Your task to perform on an android device: What's the top post on reddit? Image 0: 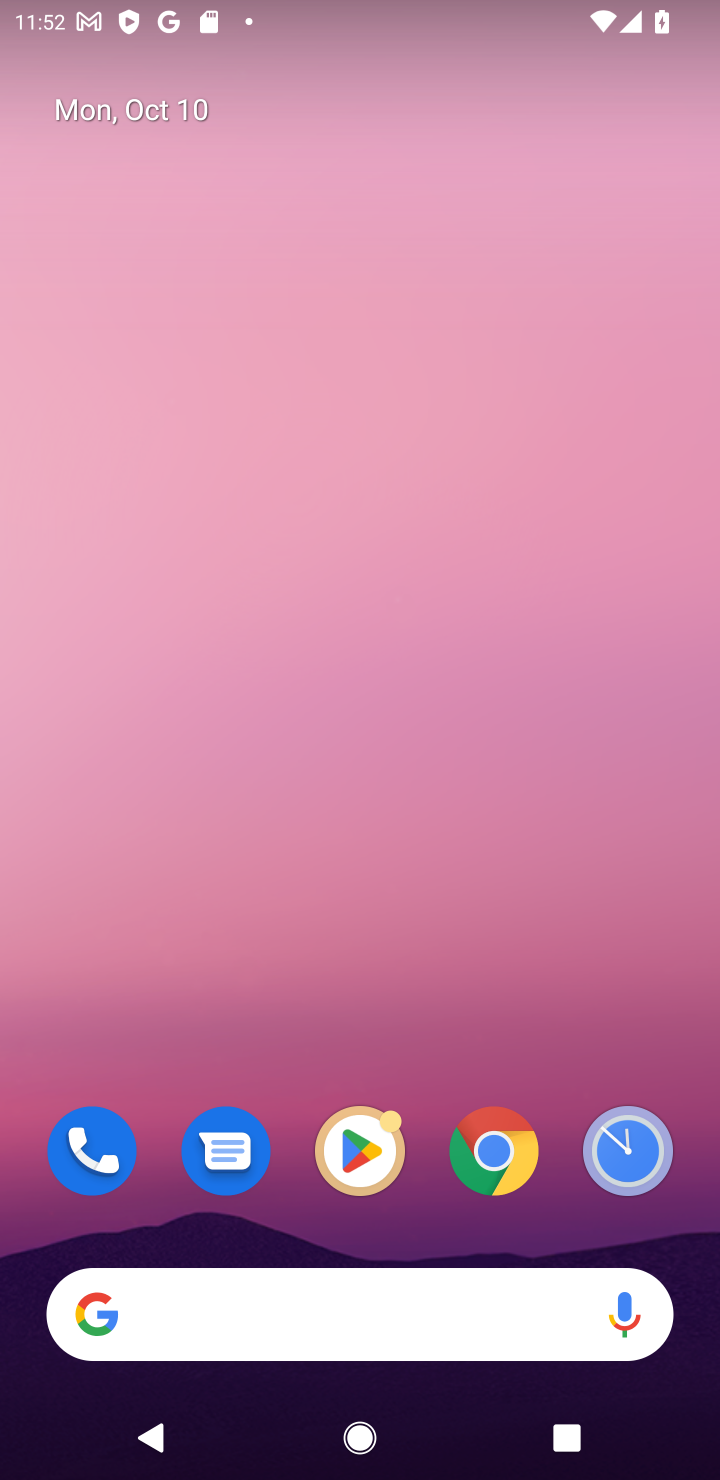
Step 0: click (290, 1299)
Your task to perform on an android device: What's the top post on reddit? Image 1: 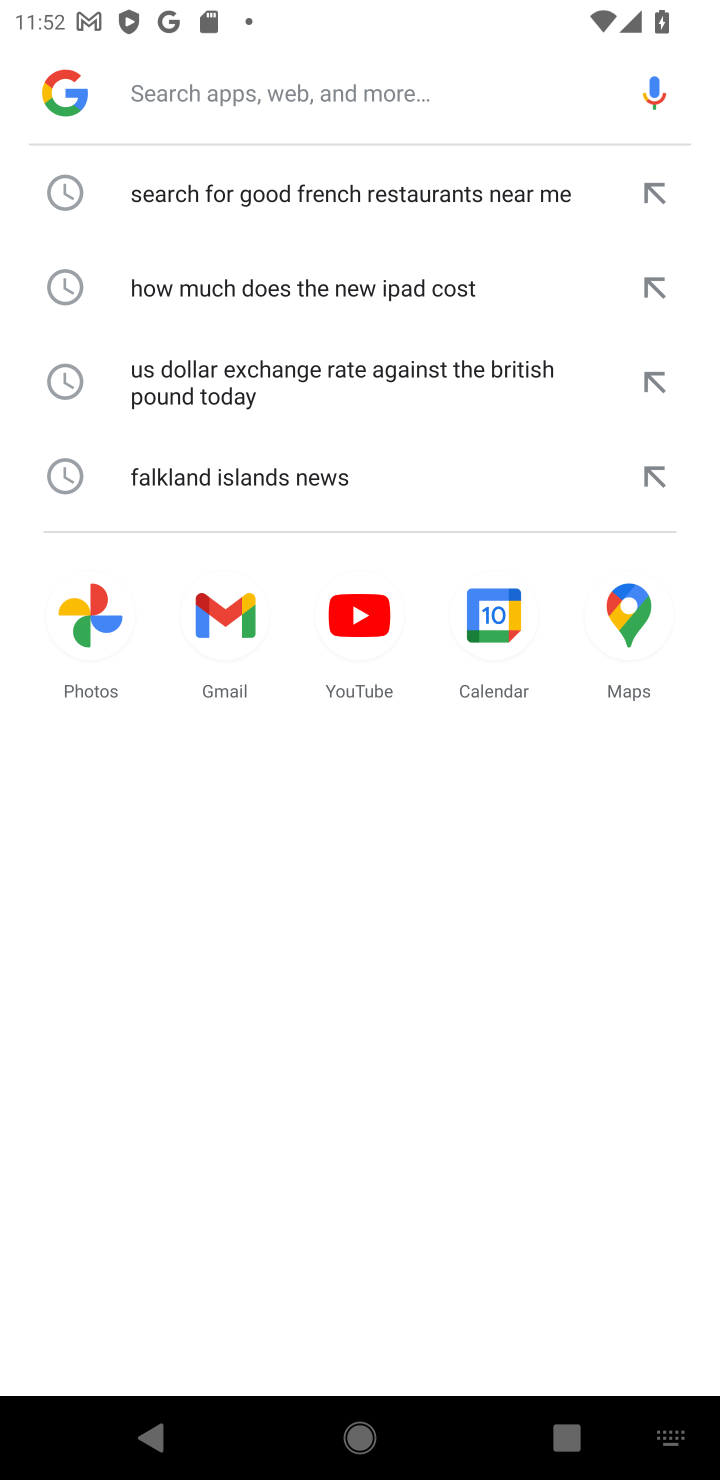
Step 1: type "top post on reddit?"
Your task to perform on an android device: What's the top post on reddit? Image 2: 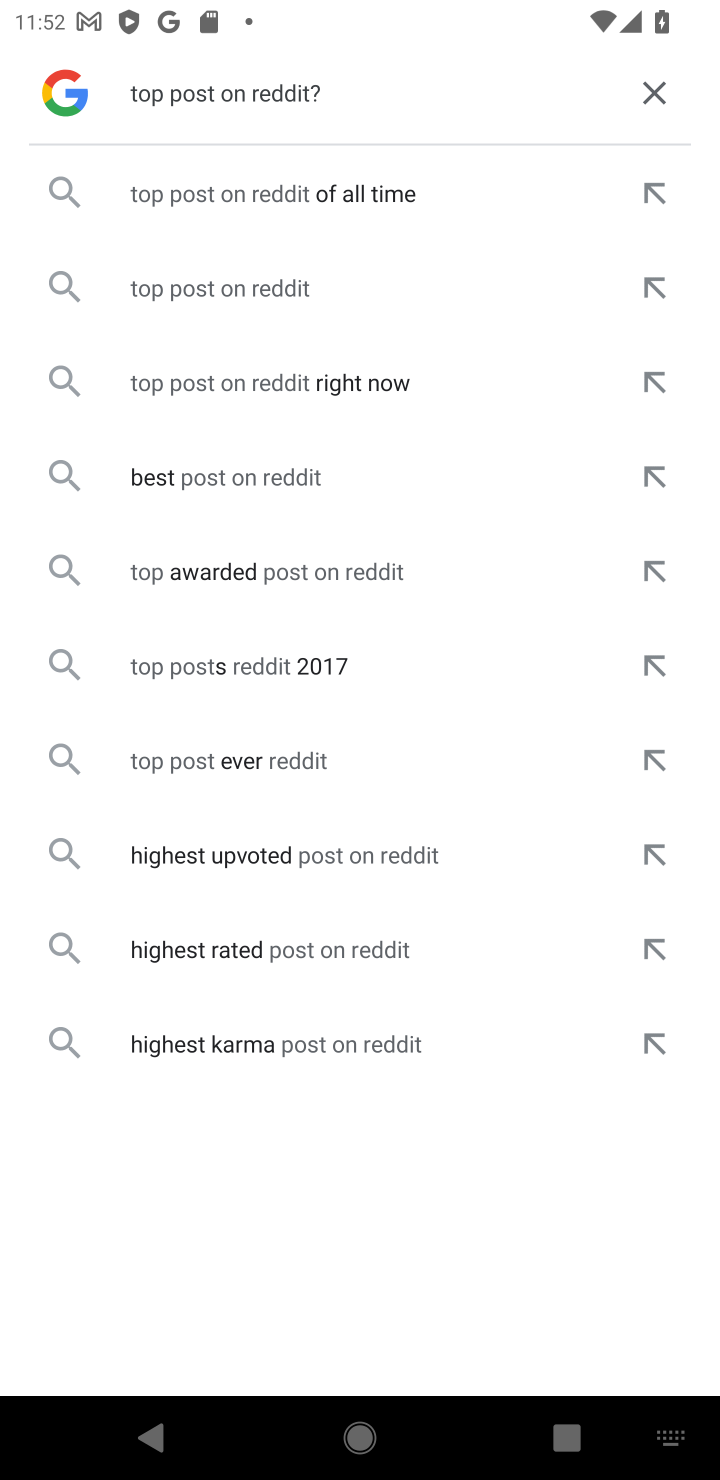
Step 2: click (188, 284)
Your task to perform on an android device: What's the top post on reddit? Image 3: 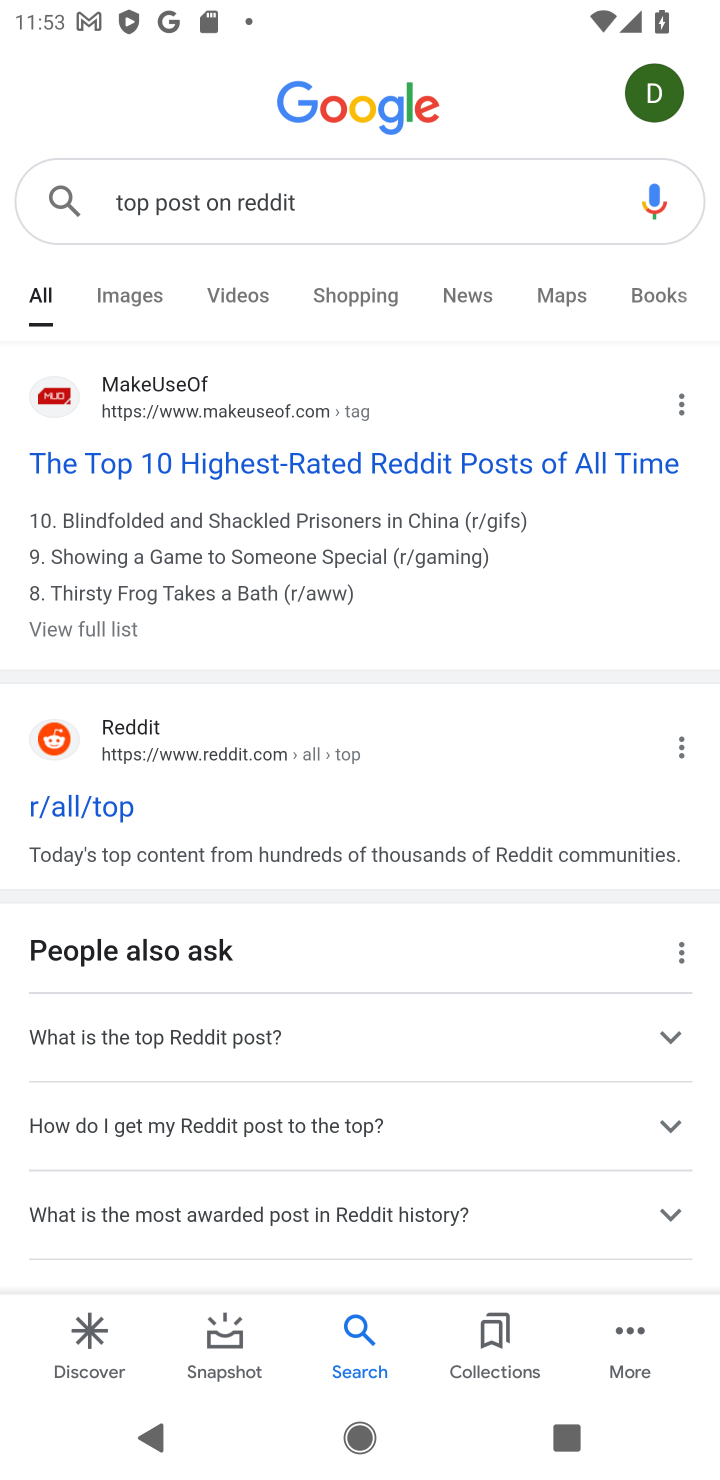
Step 3: click (211, 460)
Your task to perform on an android device: What's the top post on reddit? Image 4: 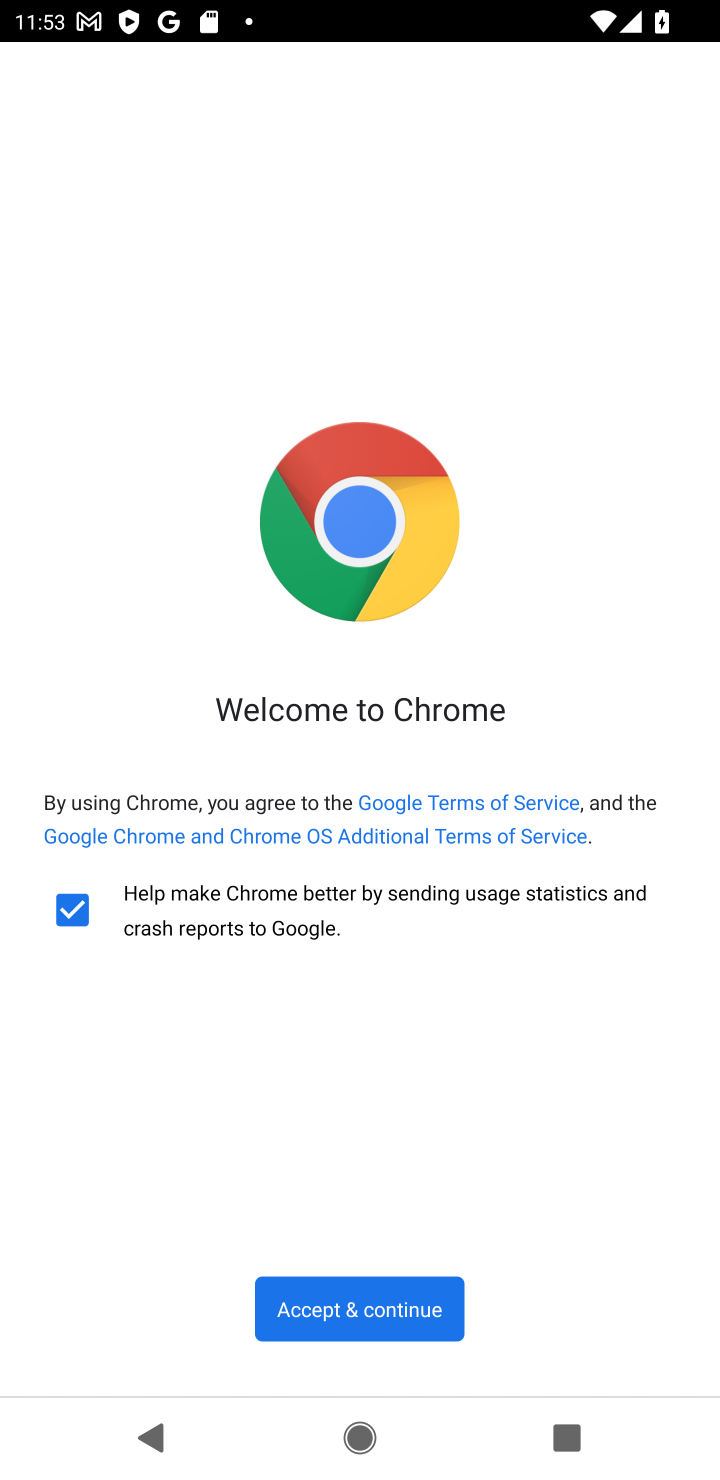
Step 4: click (407, 1314)
Your task to perform on an android device: What's the top post on reddit? Image 5: 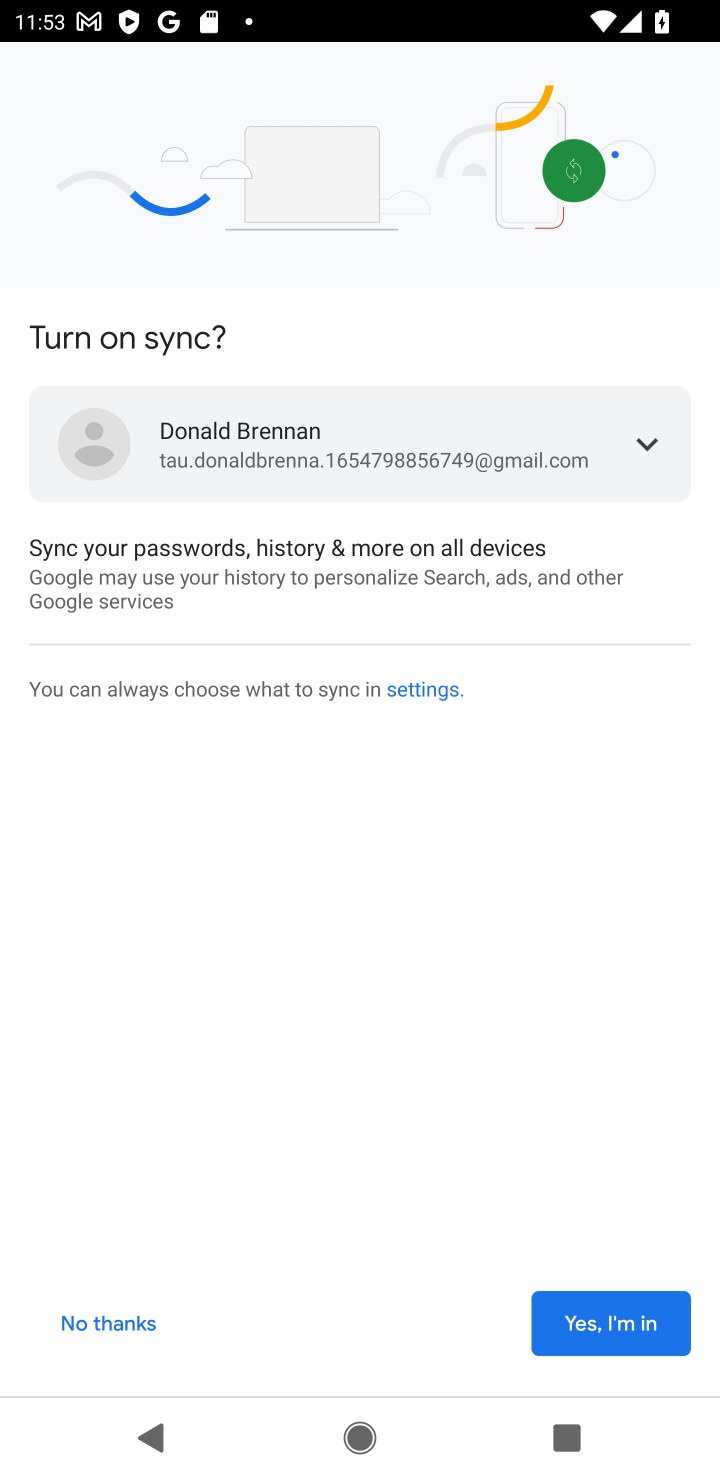
Step 5: click (656, 1339)
Your task to perform on an android device: What's the top post on reddit? Image 6: 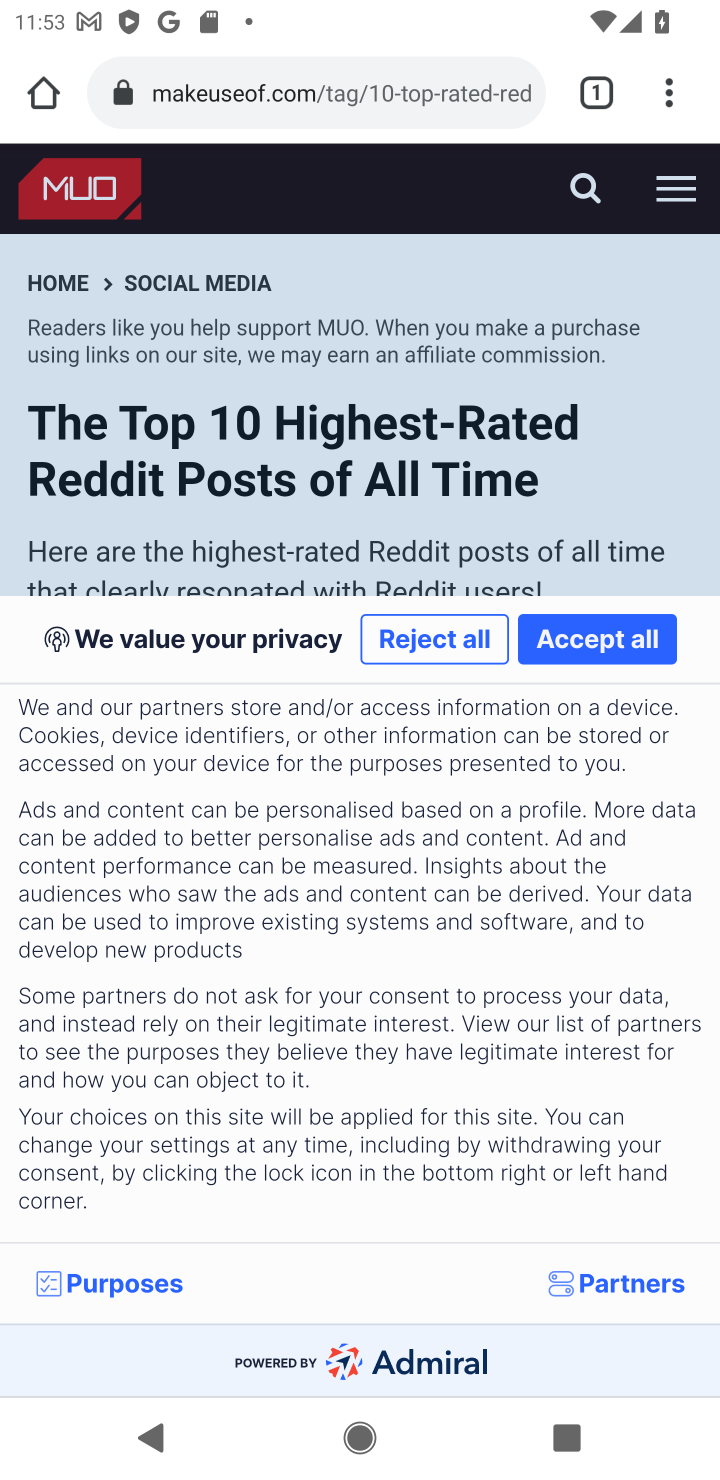
Step 6: click (540, 645)
Your task to perform on an android device: What's the top post on reddit? Image 7: 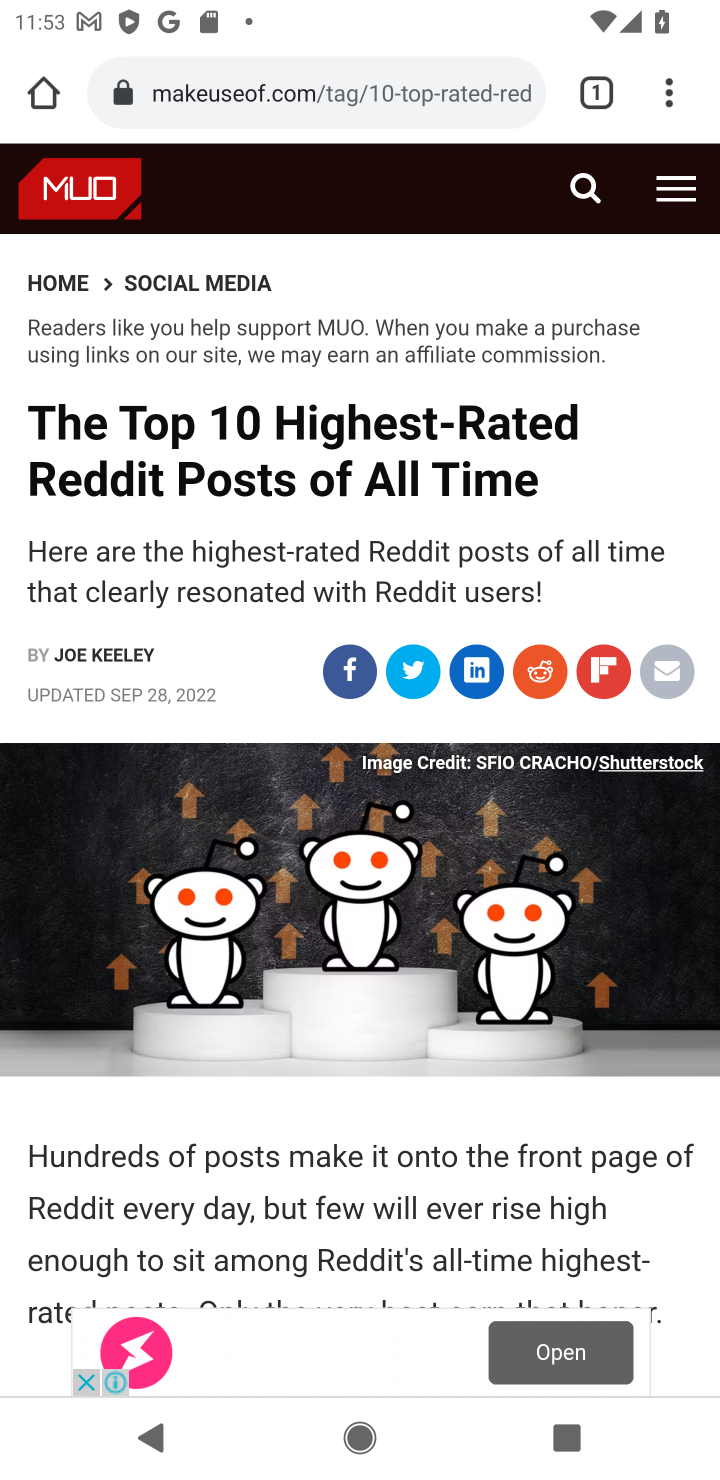
Step 7: task complete